Your task to perform on an android device: turn pop-ups on in chrome Image 0: 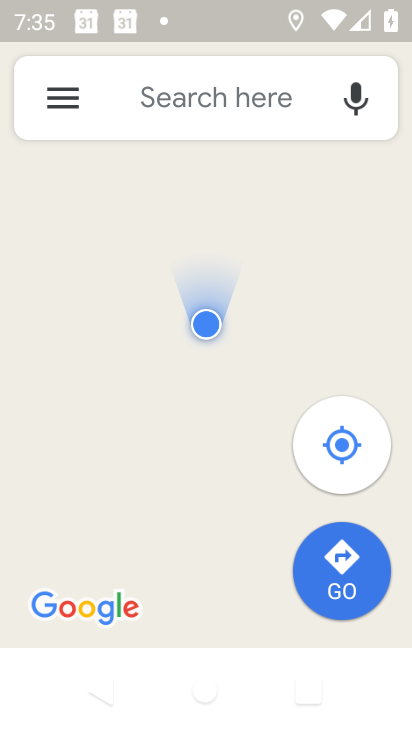
Step 0: press home button
Your task to perform on an android device: turn pop-ups on in chrome Image 1: 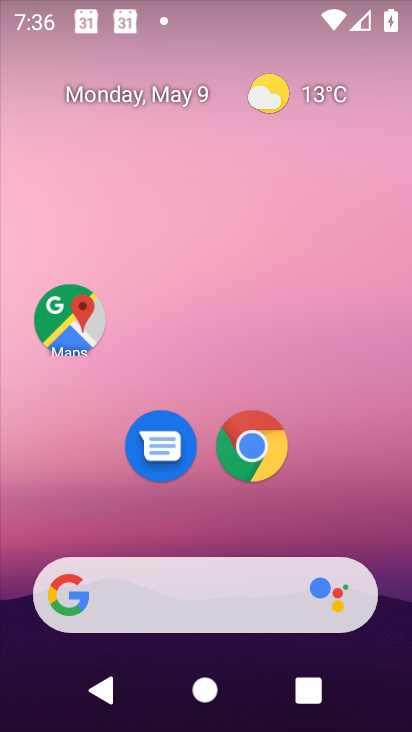
Step 1: click (248, 441)
Your task to perform on an android device: turn pop-ups on in chrome Image 2: 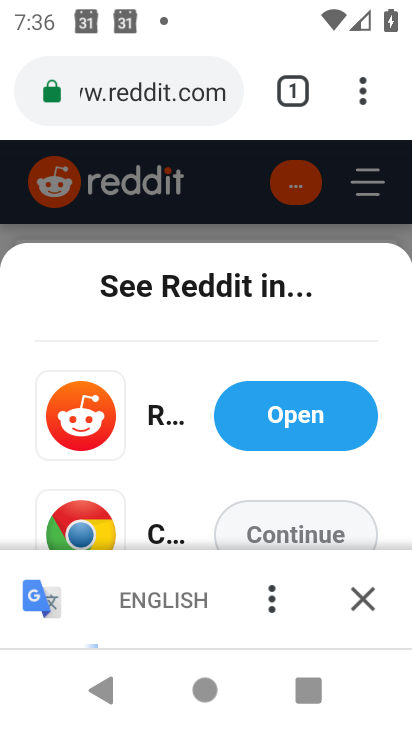
Step 2: drag from (361, 85) to (210, 489)
Your task to perform on an android device: turn pop-ups on in chrome Image 3: 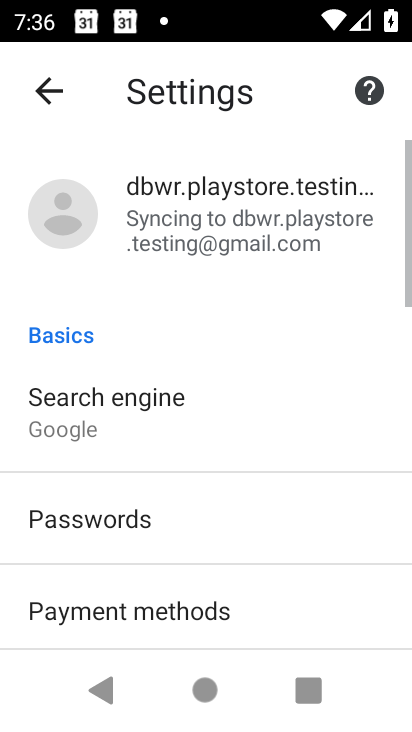
Step 3: drag from (219, 544) to (249, 243)
Your task to perform on an android device: turn pop-ups on in chrome Image 4: 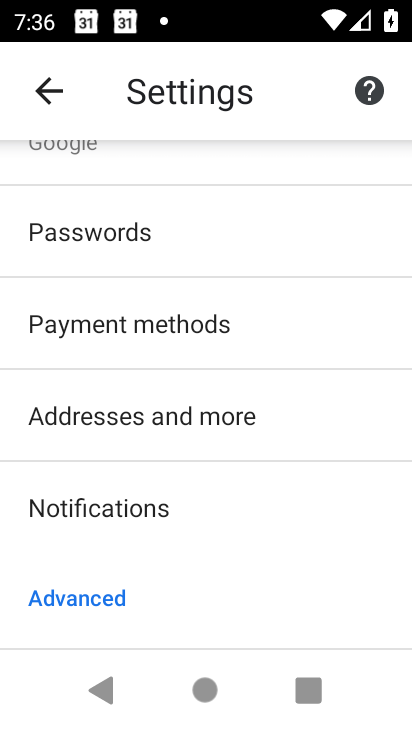
Step 4: drag from (241, 586) to (243, 232)
Your task to perform on an android device: turn pop-ups on in chrome Image 5: 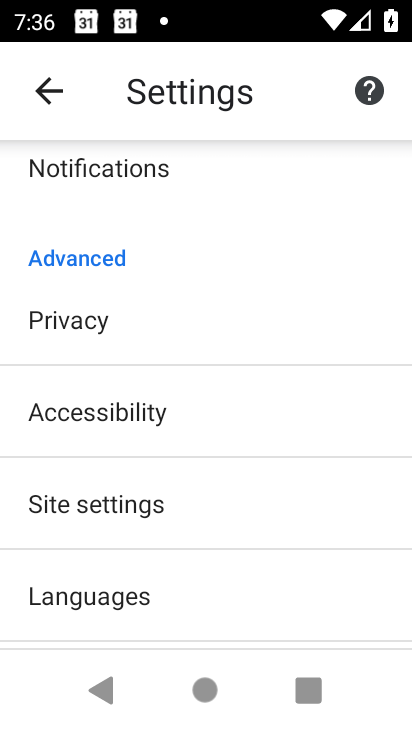
Step 5: click (101, 511)
Your task to perform on an android device: turn pop-ups on in chrome Image 6: 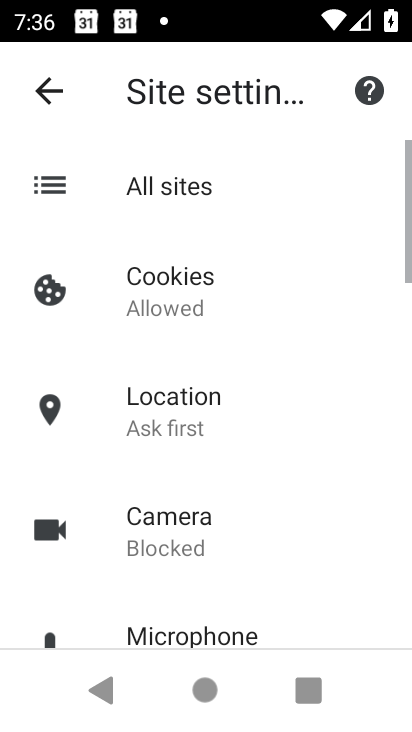
Step 6: drag from (135, 487) to (212, 315)
Your task to perform on an android device: turn pop-ups on in chrome Image 7: 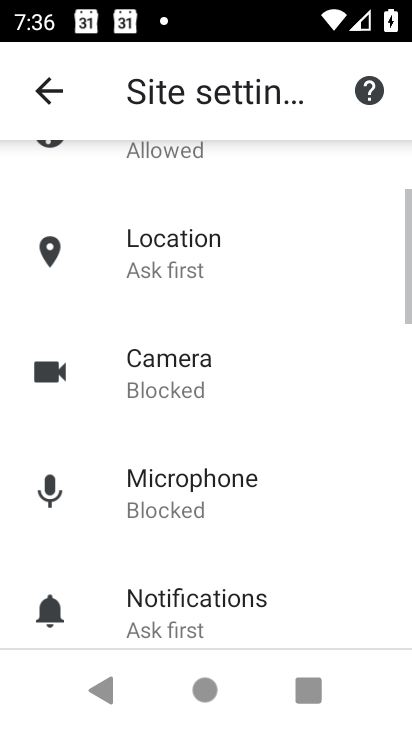
Step 7: drag from (241, 474) to (283, 224)
Your task to perform on an android device: turn pop-ups on in chrome Image 8: 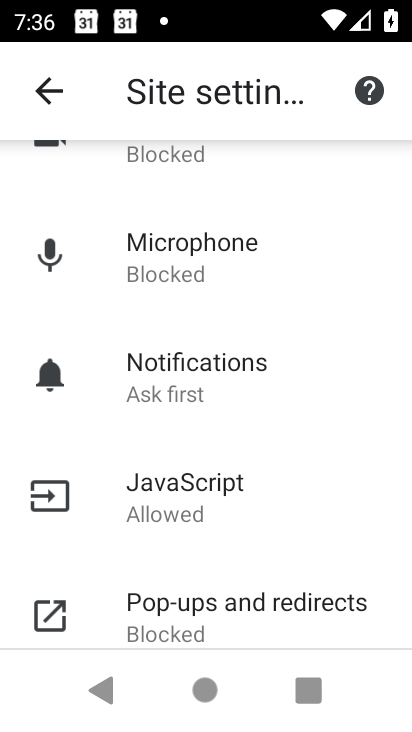
Step 8: click (289, 599)
Your task to perform on an android device: turn pop-ups on in chrome Image 9: 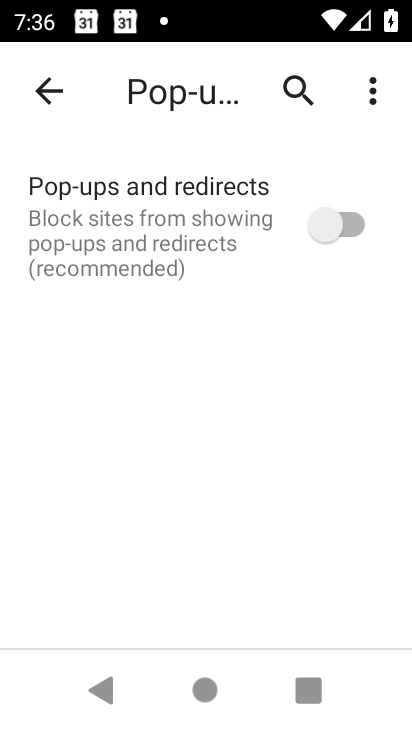
Step 9: click (348, 218)
Your task to perform on an android device: turn pop-ups on in chrome Image 10: 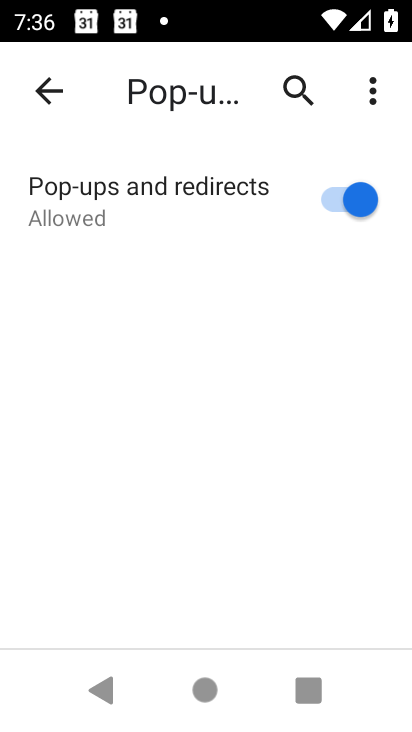
Step 10: task complete